Your task to perform on an android device: Open display settings Image 0: 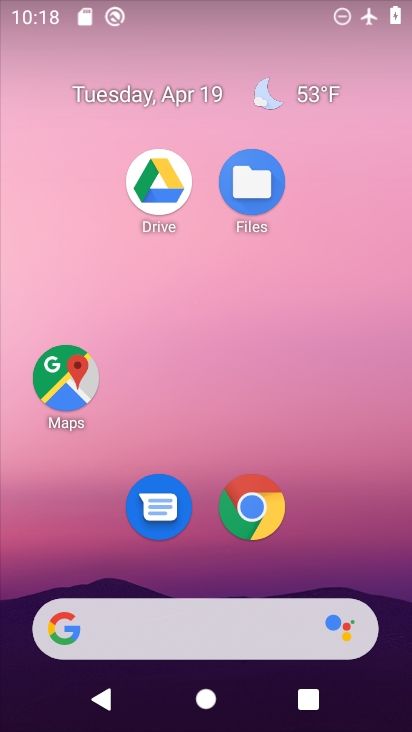
Step 0: drag from (345, 508) to (356, 60)
Your task to perform on an android device: Open display settings Image 1: 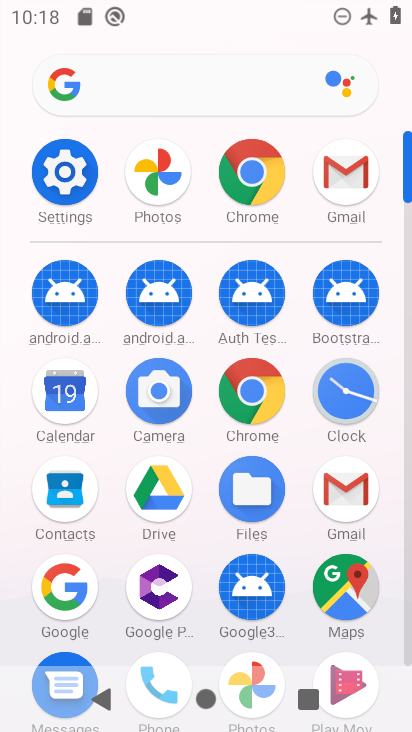
Step 1: click (69, 176)
Your task to perform on an android device: Open display settings Image 2: 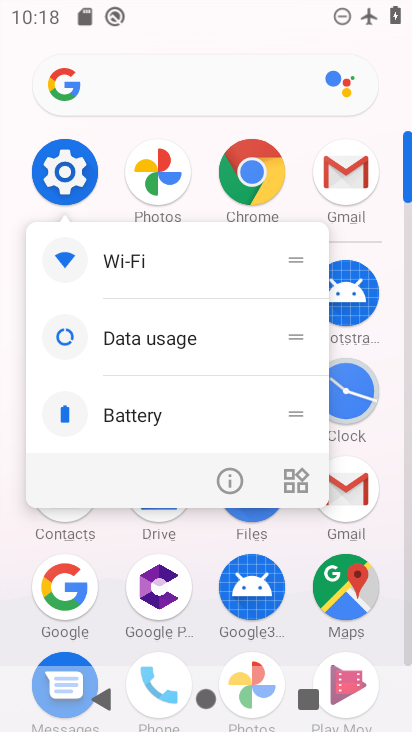
Step 2: click (69, 167)
Your task to perform on an android device: Open display settings Image 3: 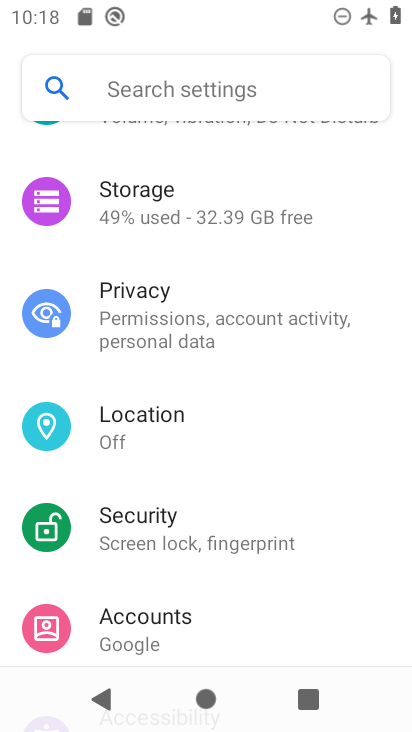
Step 3: drag from (258, 249) to (272, 651)
Your task to perform on an android device: Open display settings Image 4: 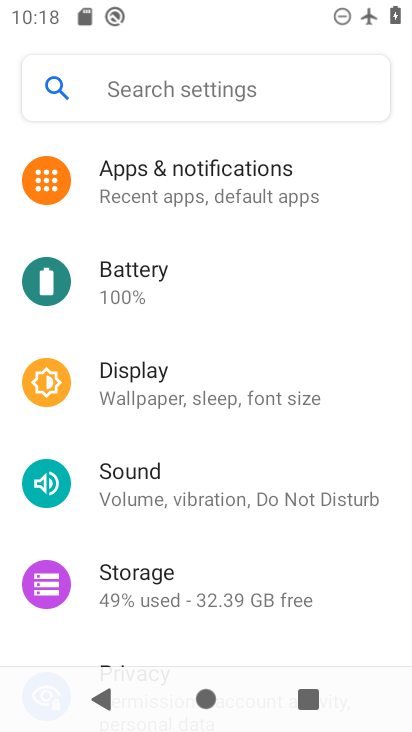
Step 4: click (225, 377)
Your task to perform on an android device: Open display settings Image 5: 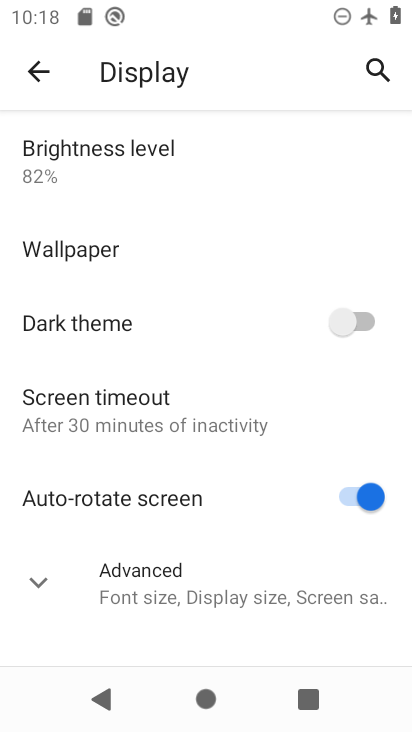
Step 5: task complete